Your task to perform on an android device: Open accessibility settings Image 0: 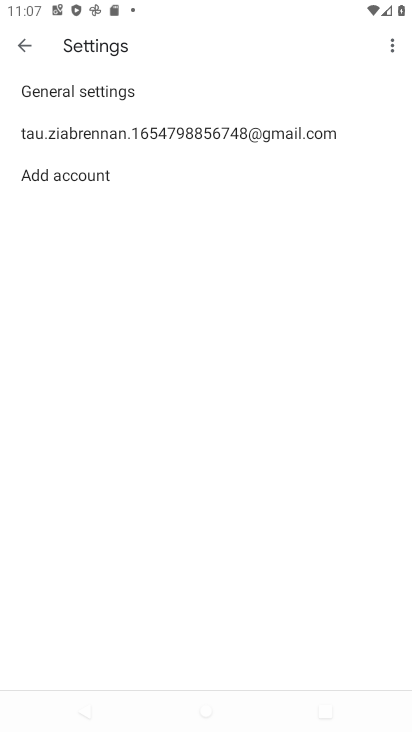
Step 0: press home button
Your task to perform on an android device: Open accessibility settings Image 1: 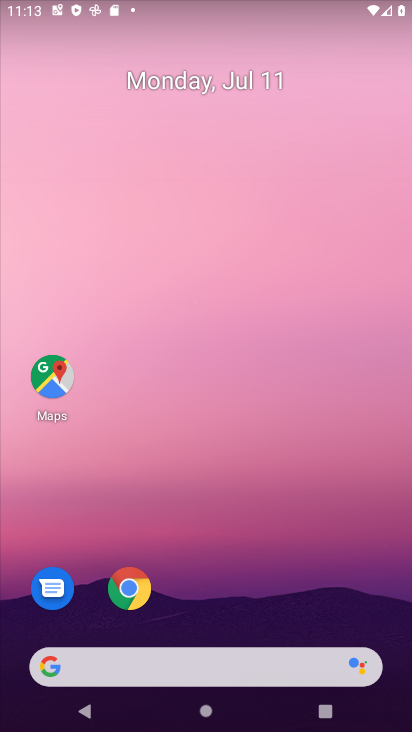
Step 1: drag from (145, 676) to (276, 49)
Your task to perform on an android device: Open accessibility settings Image 2: 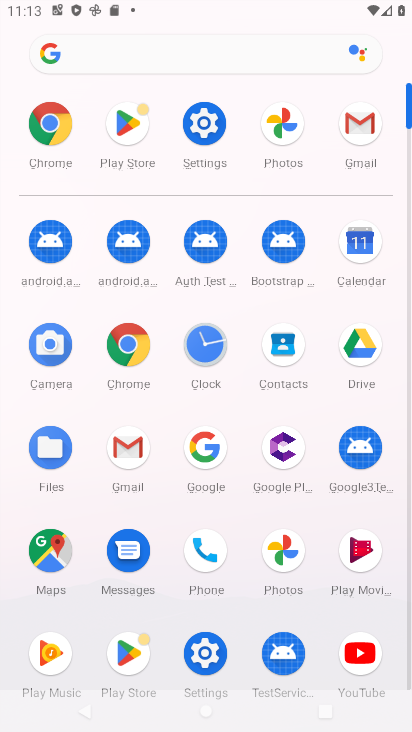
Step 2: click (199, 117)
Your task to perform on an android device: Open accessibility settings Image 3: 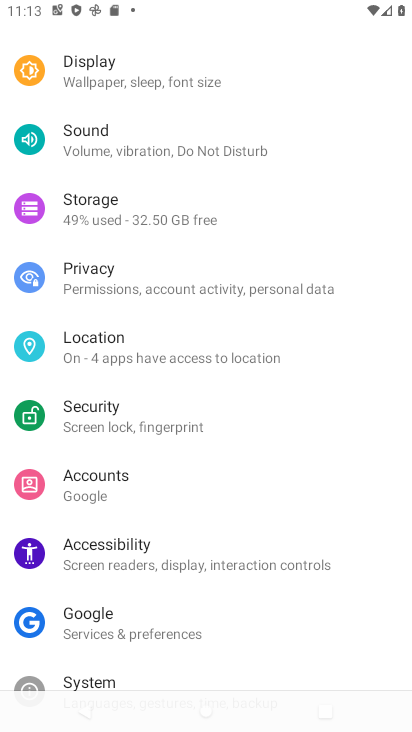
Step 3: click (213, 556)
Your task to perform on an android device: Open accessibility settings Image 4: 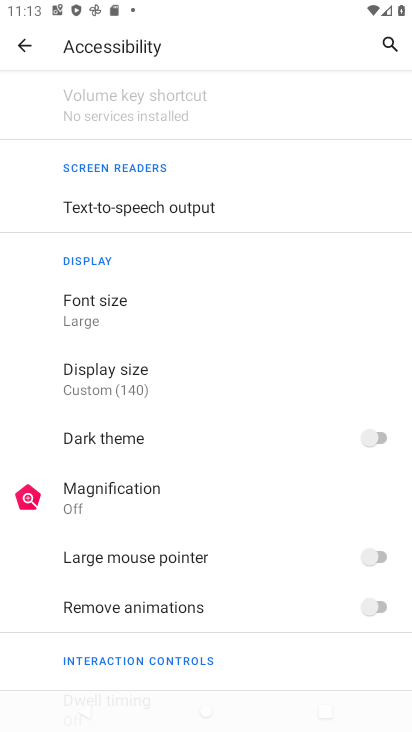
Step 4: task complete